Your task to perform on an android device: change alarm snooze length Image 0: 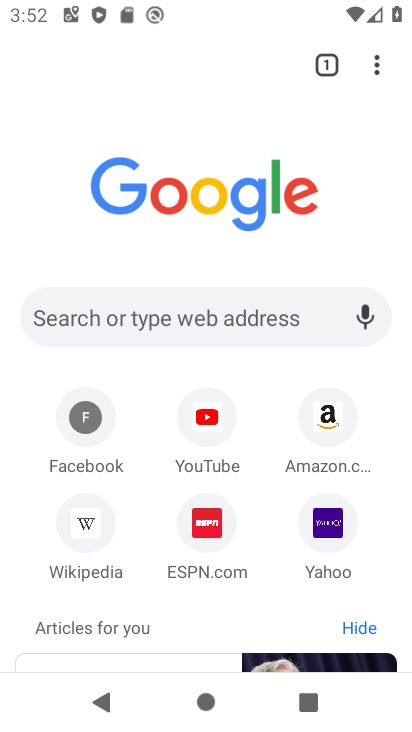
Step 0: press home button
Your task to perform on an android device: change alarm snooze length Image 1: 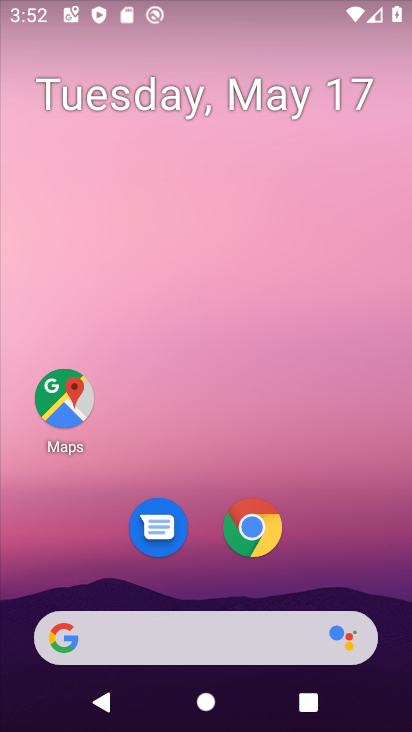
Step 1: drag from (46, 599) to (212, 184)
Your task to perform on an android device: change alarm snooze length Image 2: 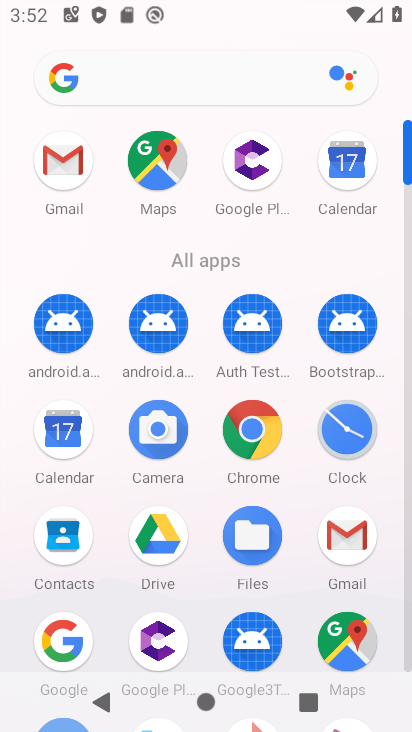
Step 2: click (366, 432)
Your task to perform on an android device: change alarm snooze length Image 3: 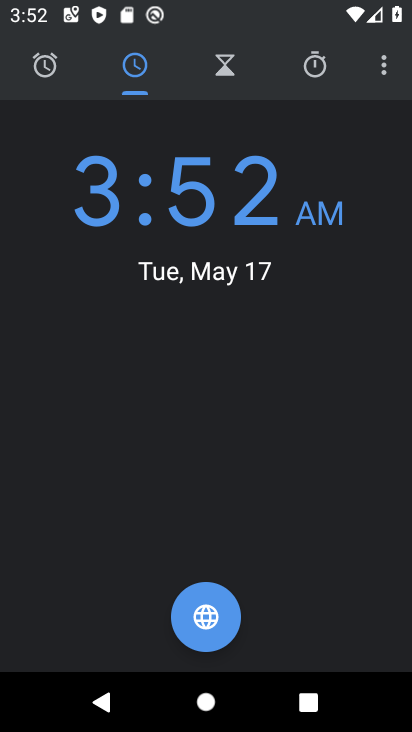
Step 3: click (377, 61)
Your task to perform on an android device: change alarm snooze length Image 4: 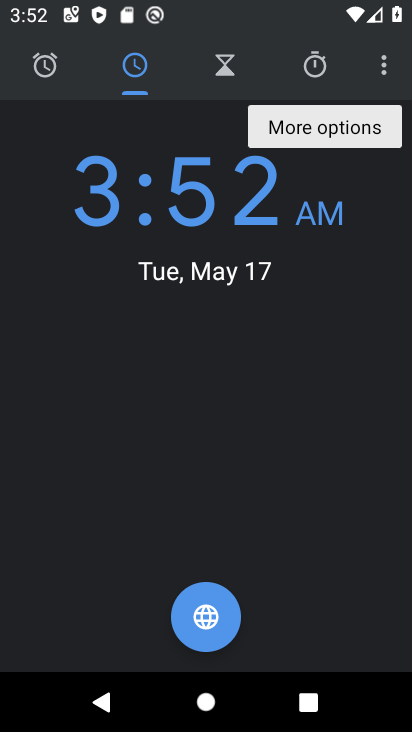
Step 4: click (395, 70)
Your task to perform on an android device: change alarm snooze length Image 5: 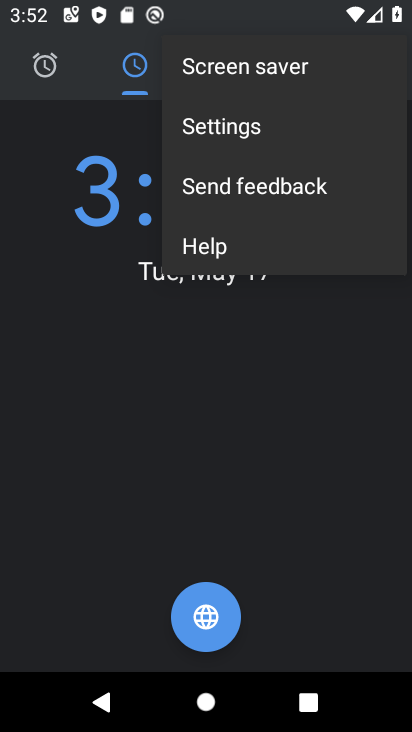
Step 5: click (332, 129)
Your task to perform on an android device: change alarm snooze length Image 6: 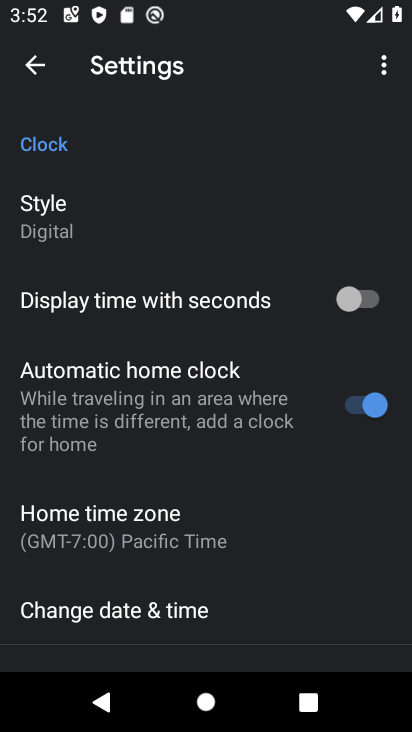
Step 6: drag from (146, 548) to (260, 131)
Your task to perform on an android device: change alarm snooze length Image 7: 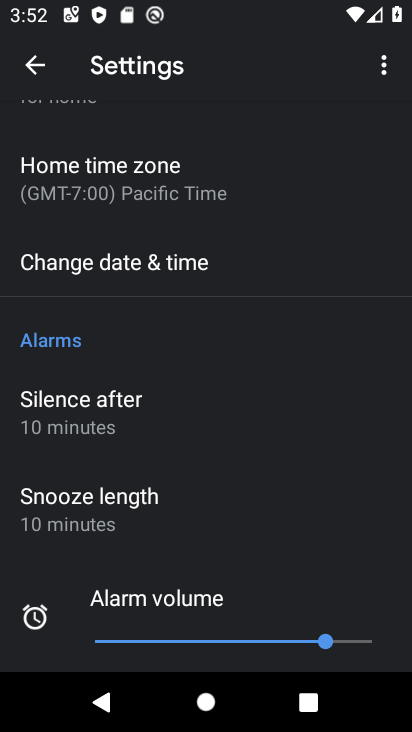
Step 7: click (167, 527)
Your task to perform on an android device: change alarm snooze length Image 8: 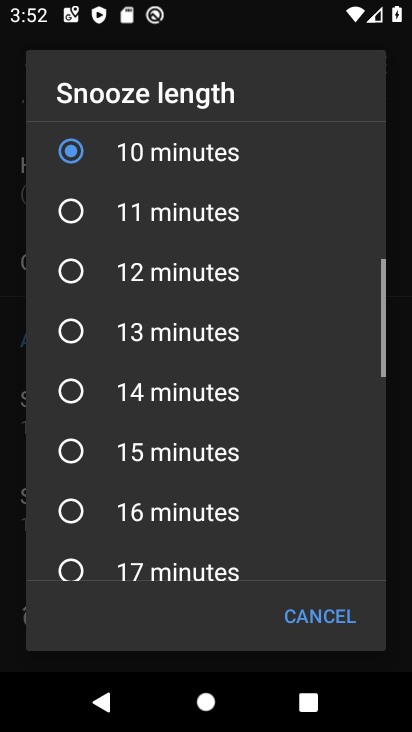
Step 8: drag from (176, 534) to (248, 272)
Your task to perform on an android device: change alarm snooze length Image 9: 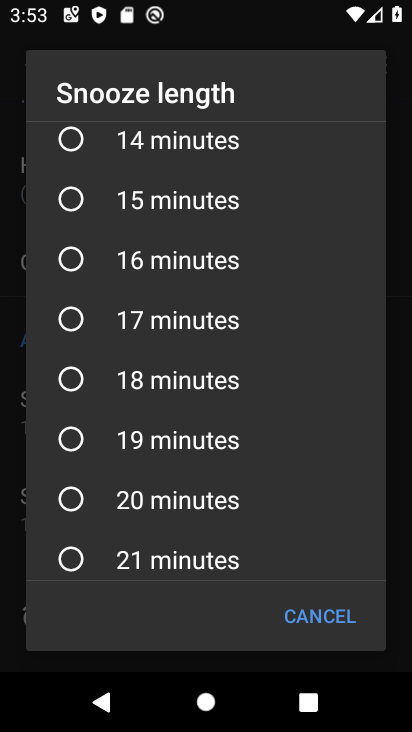
Step 9: click (177, 507)
Your task to perform on an android device: change alarm snooze length Image 10: 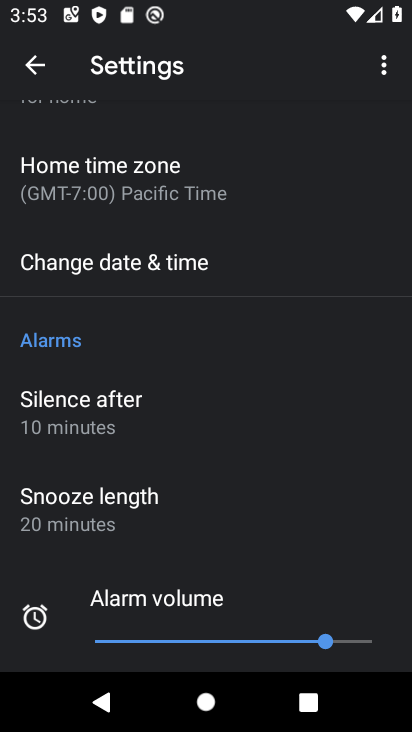
Step 10: task complete